Your task to perform on an android device: move an email to a new category in the gmail app Image 0: 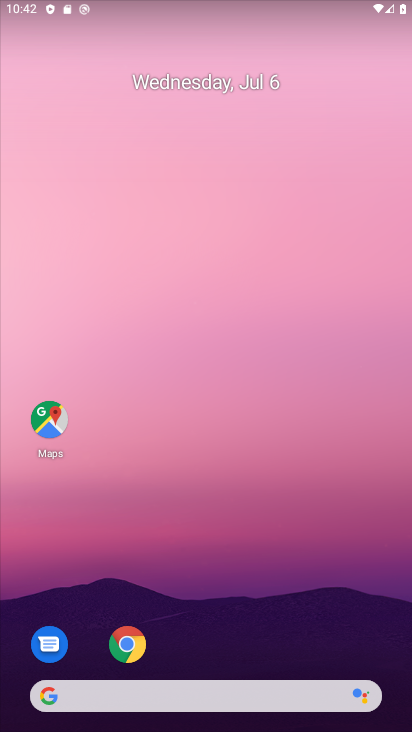
Step 0: drag from (275, 623) to (276, 155)
Your task to perform on an android device: move an email to a new category in the gmail app Image 1: 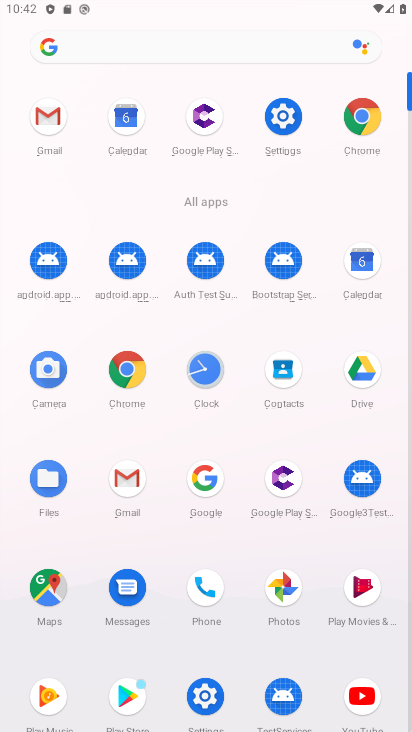
Step 1: click (51, 122)
Your task to perform on an android device: move an email to a new category in the gmail app Image 2: 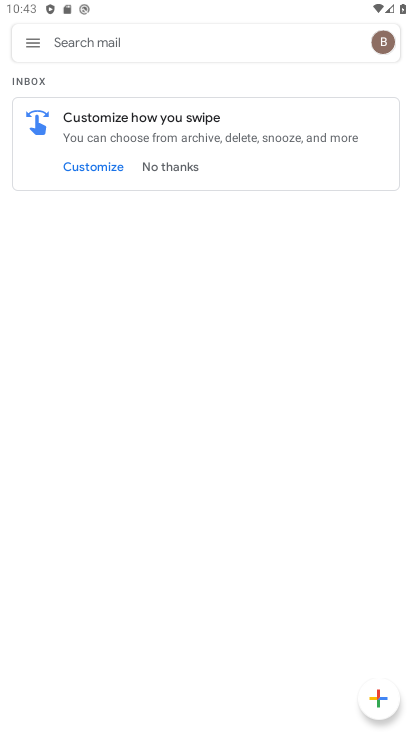
Step 2: click (33, 50)
Your task to perform on an android device: move an email to a new category in the gmail app Image 3: 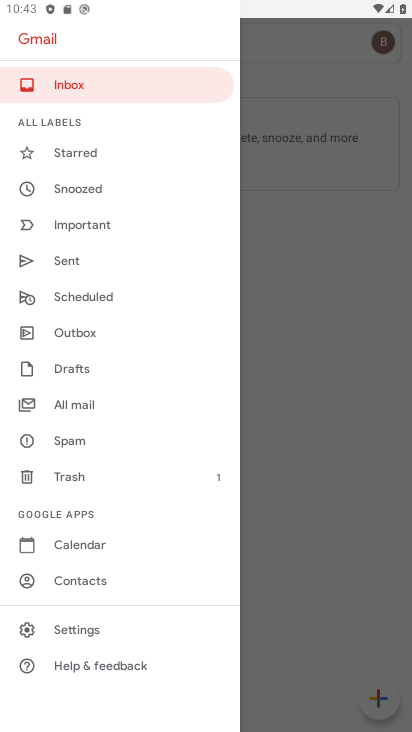
Step 3: click (86, 395)
Your task to perform on an android device: move an email to a new category in the gmail app Image 4: 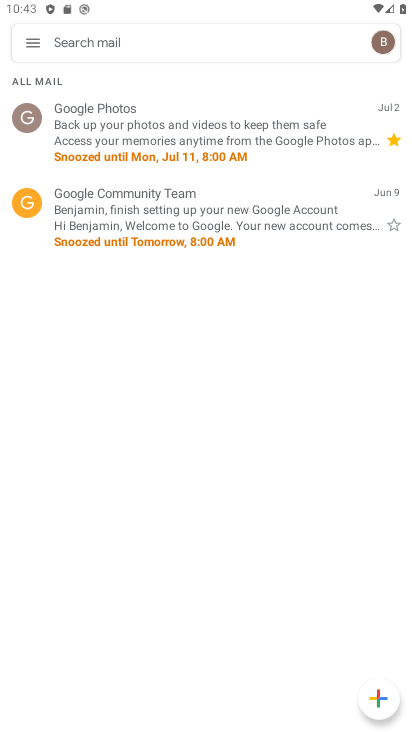
Step 4: click (165, 126)
Your task to perform on an android device: move an email to a new category in the gmail app Image 5: 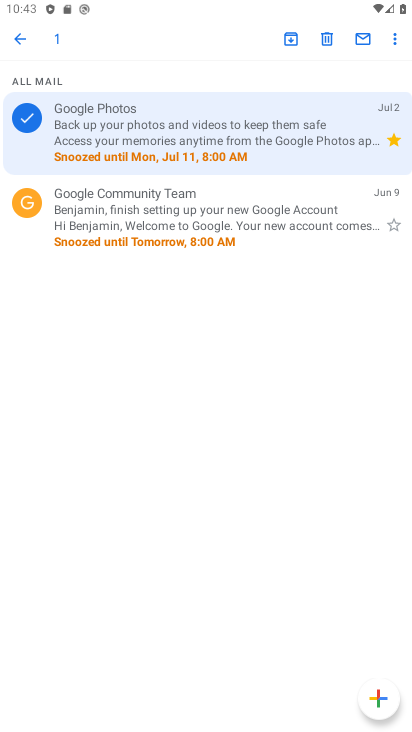
Step 5: click (397, 37)
Your task to perform on an android device: move an email to a new category in the gmail app Image 6: 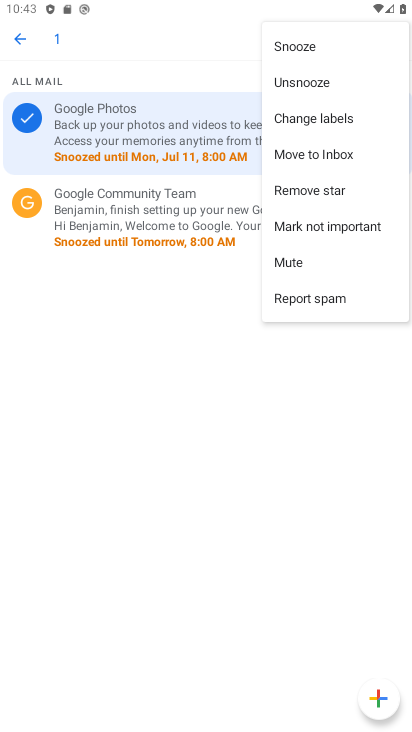
Step 6: click (379, 119)
Your task to perform on an android device: move an email to a new category in the gmail app Image 7: 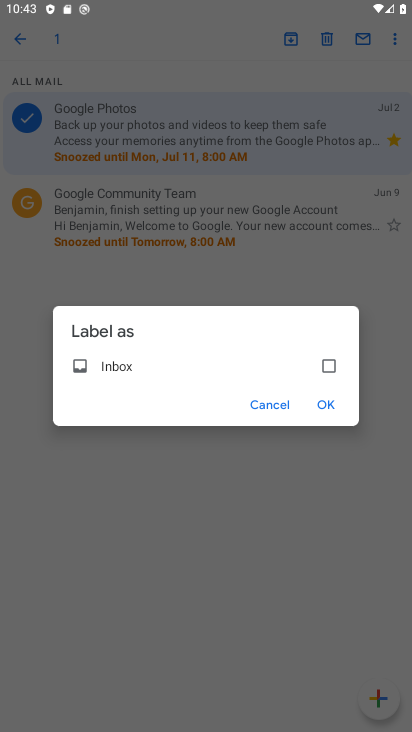
Step 7: click (327, 370)
Your task to perform on an android device: move an email to a new category in the gmail app Image 8: 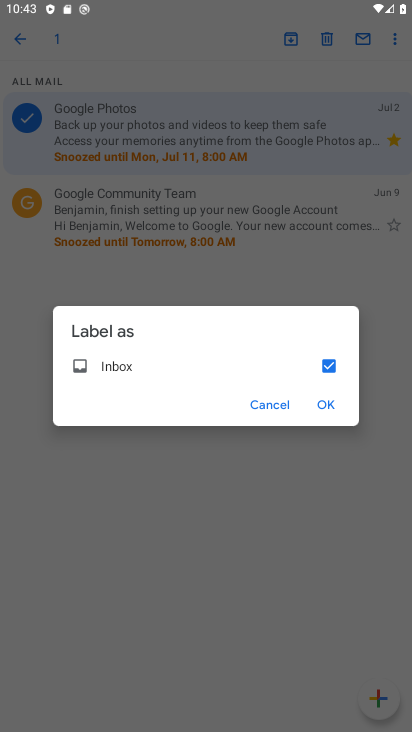
Step 8: click (327, 399)
Your task to perform on an android device: move an email to a new category in the gmail app Image 9: 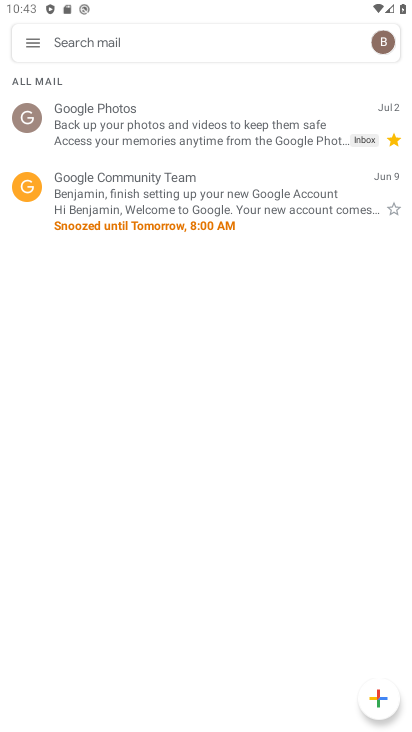
Step 9: task complete